Your task to perform on an android device: Go to wifi settings Image 0: 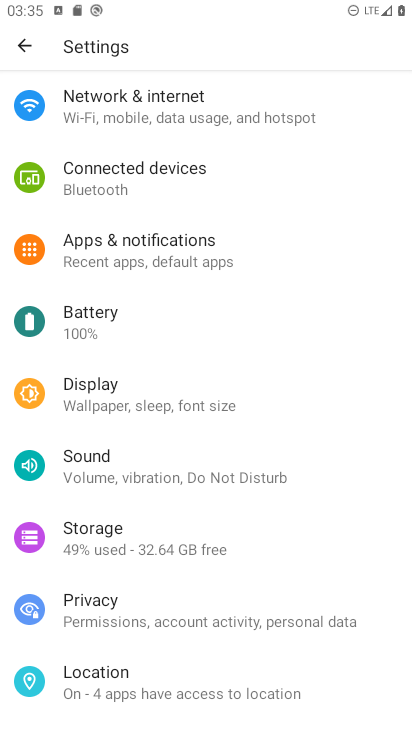
Step 0: click (105, 99)
Your task to perform on an android device: Go to wifi settings Image 1: 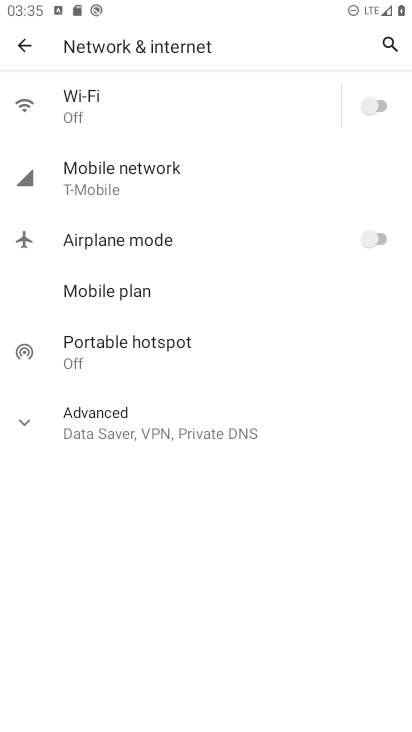
Step 1: click (80, 99)
Your task to perform on an android device: Go to wifi settings Image 2: 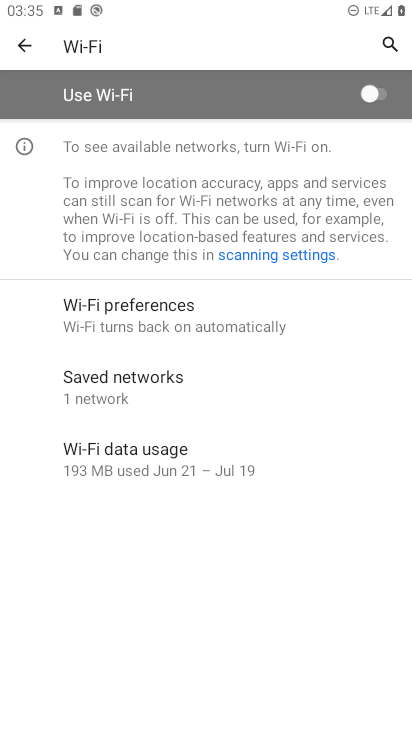
Step 2: task complete